Your task to perform on an android device: change keyboard looks Image 0: 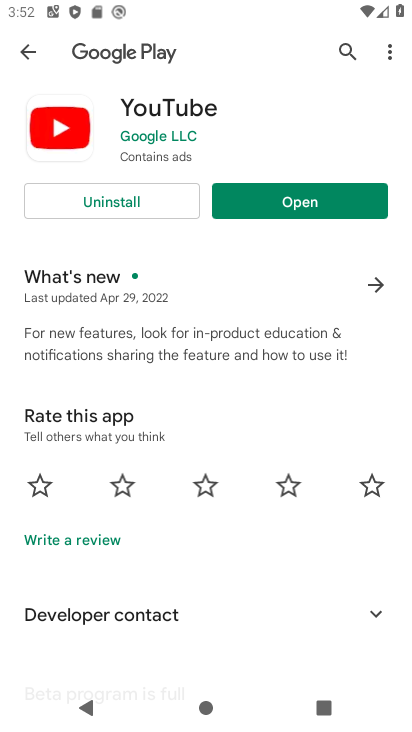
Step 0: press back button
Your task to perform on an android device: change keyboard looks Image 1: 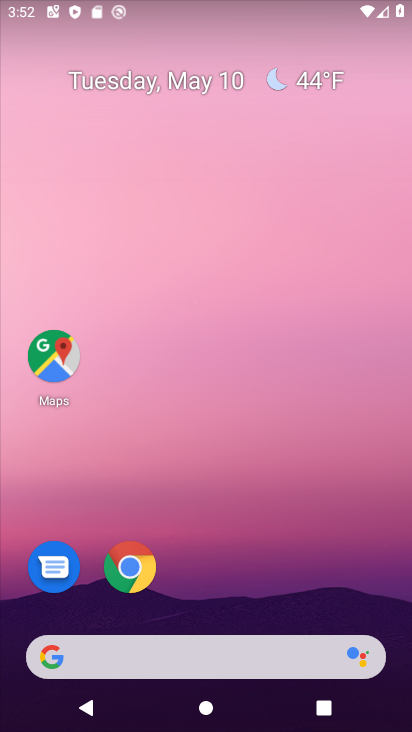
Step 1: drag from (288, 554) to (204, 54)
Your task to perform on an android device: change keyboard looks Image 2: 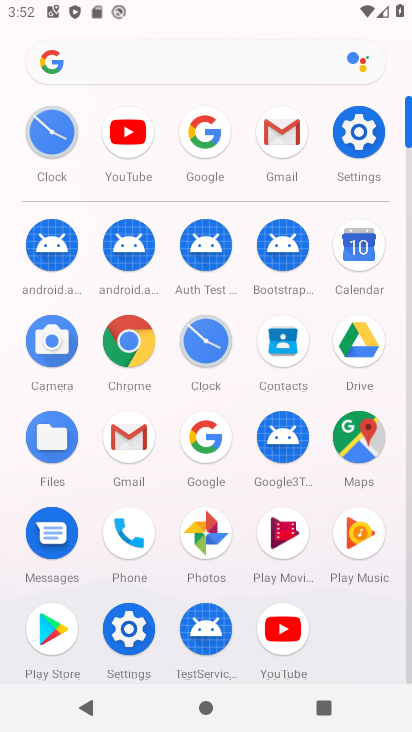
Step 2: click (361, 132)
Your task to perform on an android device: change keyboard looks Image 3: 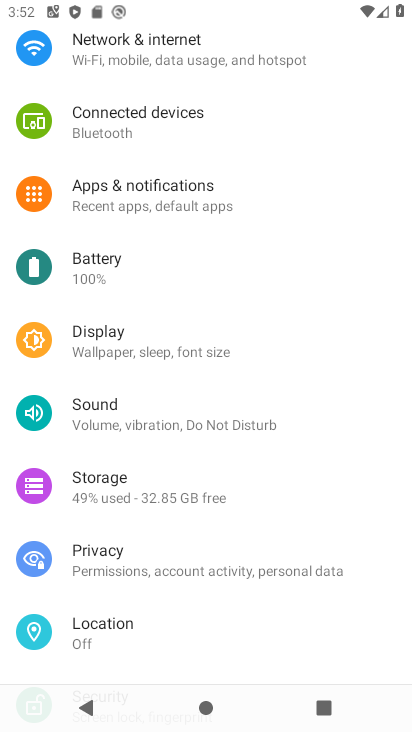
Step 3: drag from (208, 517) to (233, 322)
Your task to perform on an android device: change keyboard looks Image 4: 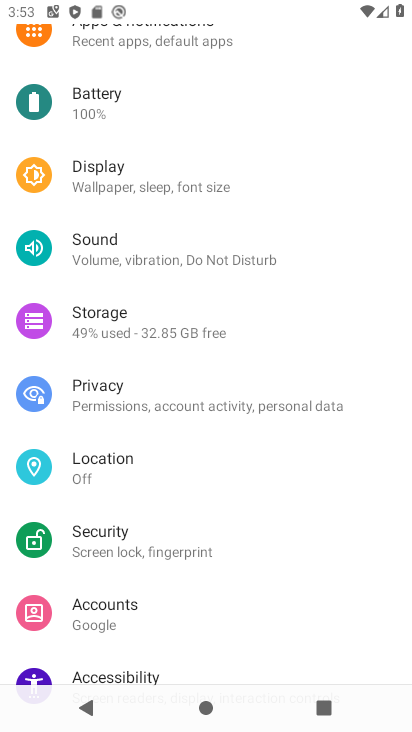
Step 4: drag from (186, 529) to (166, 310)
Your task to perform on an android device: change keyboard looks Image 5: 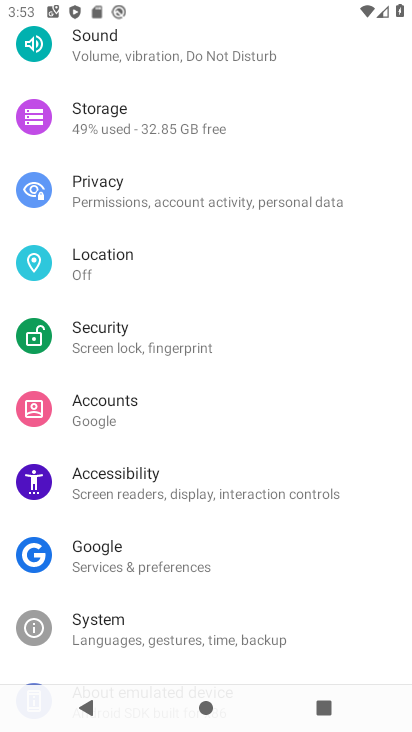
Step 5: drag from (149, 535) to (201, 315)
Your task to perform on an android device: change keyboard looks Image 6: 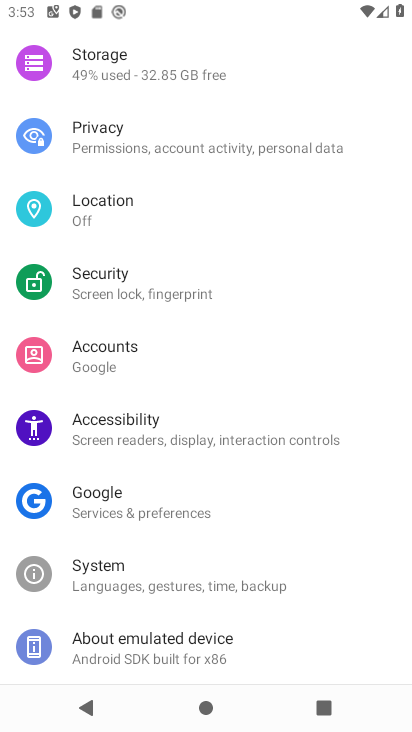
Step 6: click (118, 574)
Your task to perform on an android device: change keyboard looks Image 7: 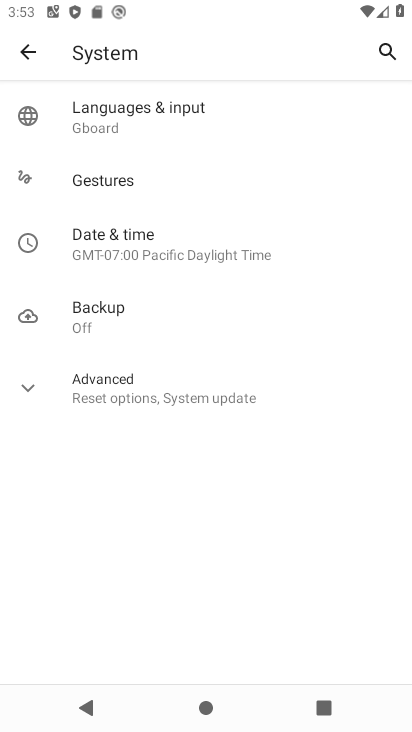
Step 7: click (108, 111)
Your task to perform on an android device: change keyboard looks Image 8: 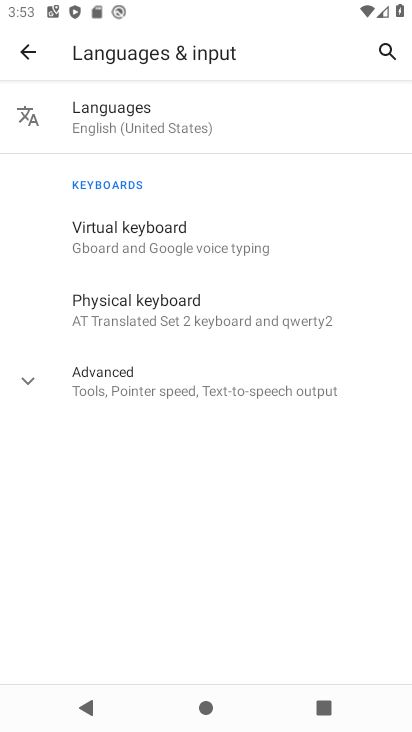
Step 8: click (148, 223)
Your task to perform on an android device: change keyboard looks Image 9: 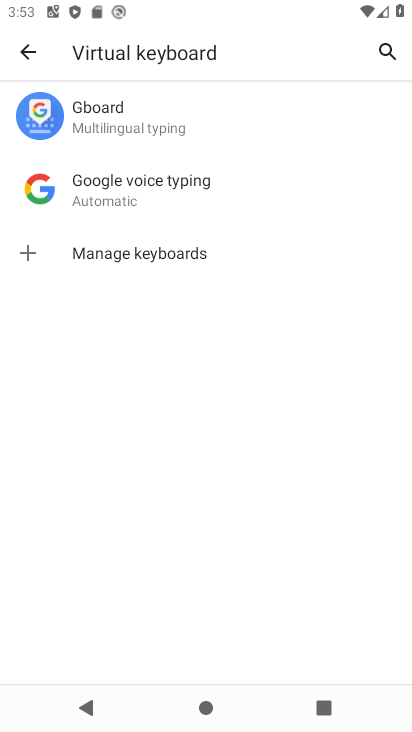
Step 9: click (105, 121)
Your task to perform on an android device: change keyboard looks Image 10: 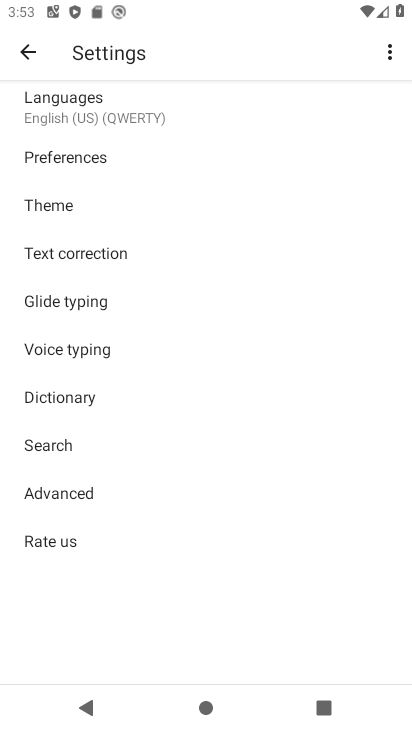
Step 10: click (47, 204)
Your task to perform on an android device: change keyboard looks Image 11: 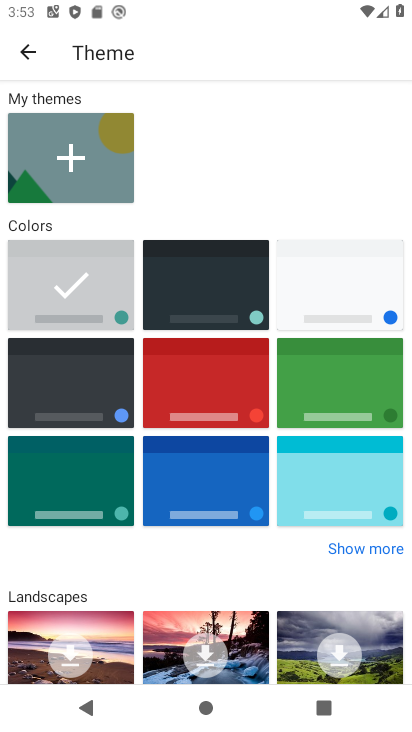
Step 11: click (220, 481)
Your task to perform on an android device: change keyboard looks Image 12: 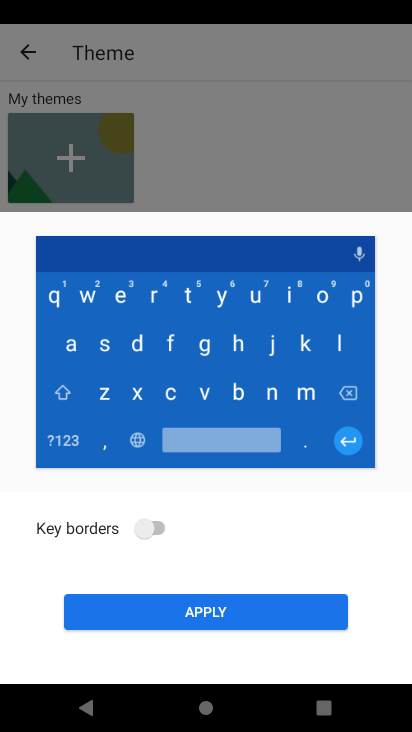
Step 12: click (146, 529)
Your task to perform on an android device: change keyboard looks Image 13: 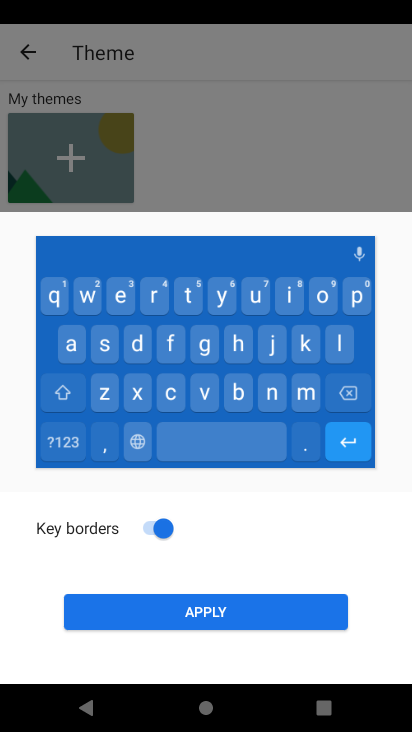
Step 13: click (205, 621)
Your task to perform on an android device: change keyboard looks Image 14: 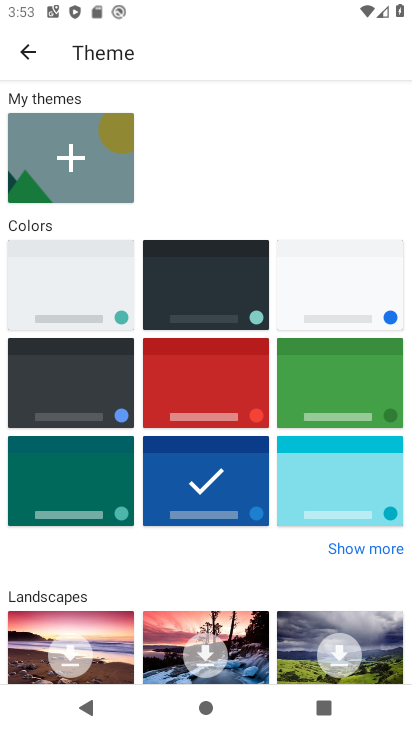
Step 14: task complete